Your task to perform on an android device: Find coffee shops on Maps Image 0: 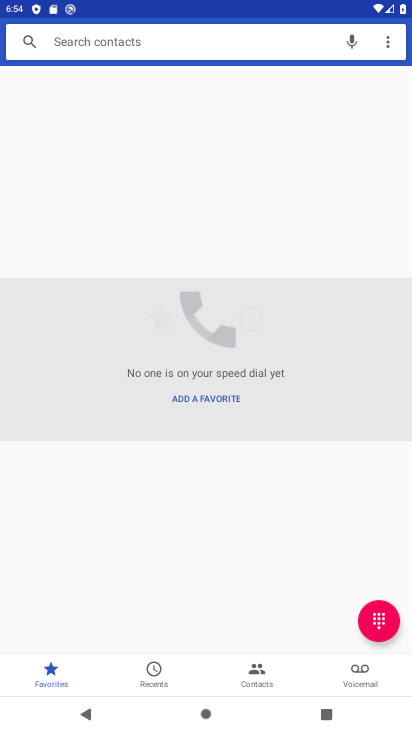
Step 0: press home button
Your task to perform on an android device: Find coffee shops on Maps Image 1: 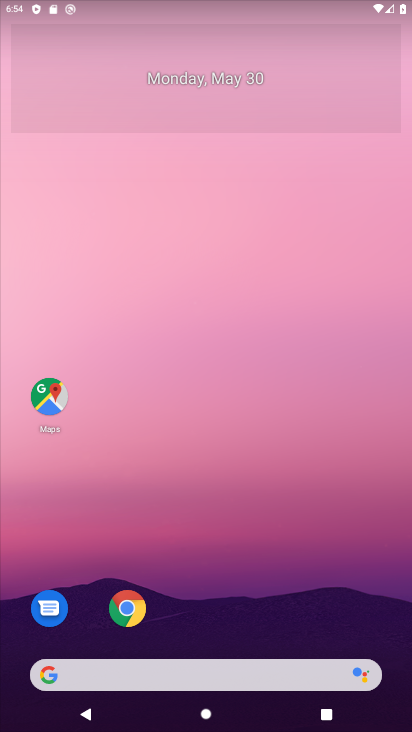
Step 1: click (46, 390)
Your task to perform on an android device: Find coffee shops on Maps Image 2: 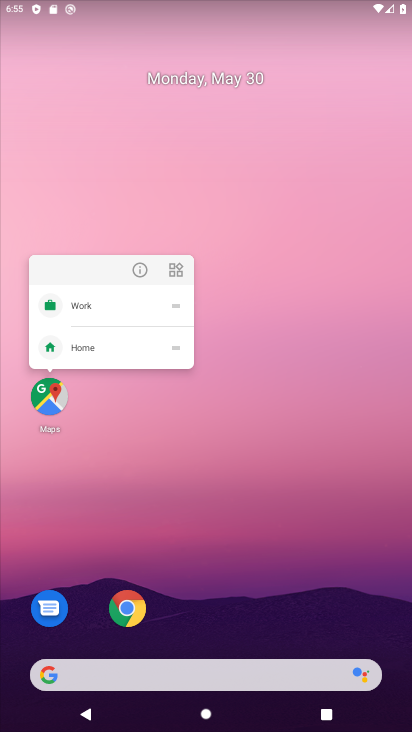
Step 2: click (47, 396)
Your task to perform on an android device: Find coffee shops on Maps Image 3: 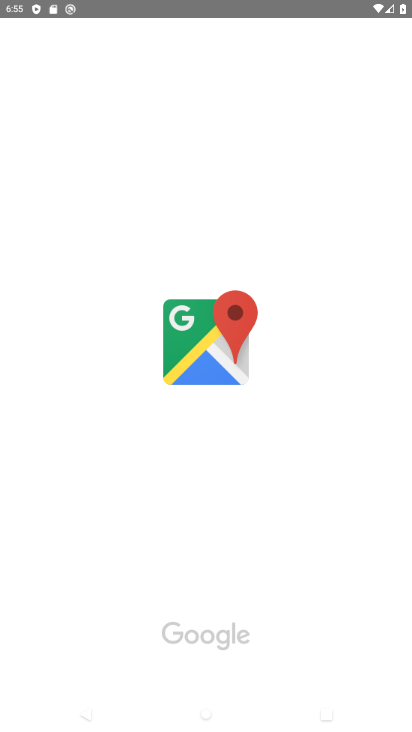
Step 3: task complete